Your task to perform on an android device: change timer sound Image 0: 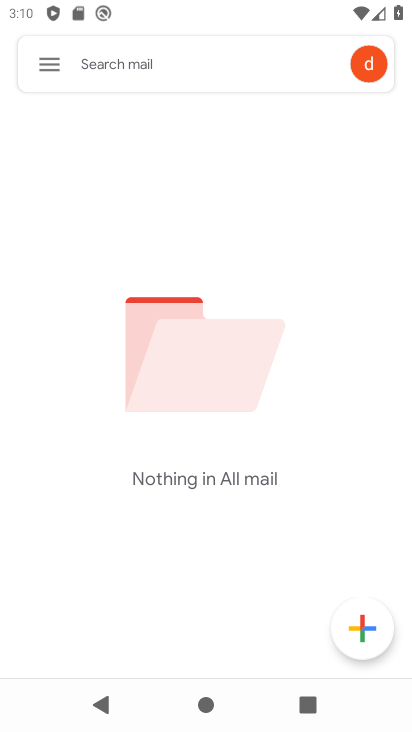
Step 0: press home button
Your task to perform on an android device: change timer sound Image 1: 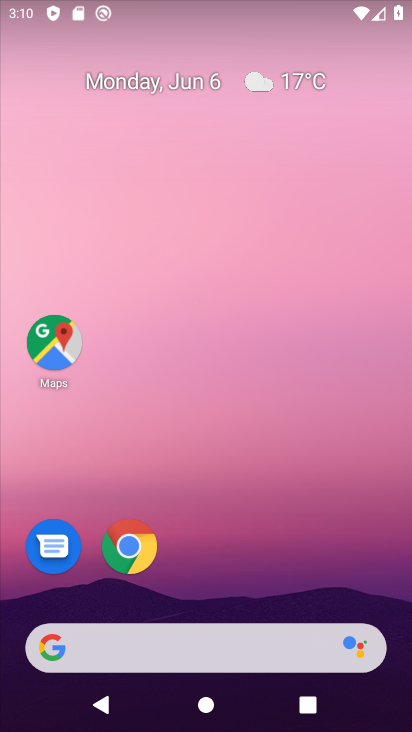
Step 1: drag from (350, 495) to (401, 40)
Your task to perform on an android device: change timer sound Image 2: 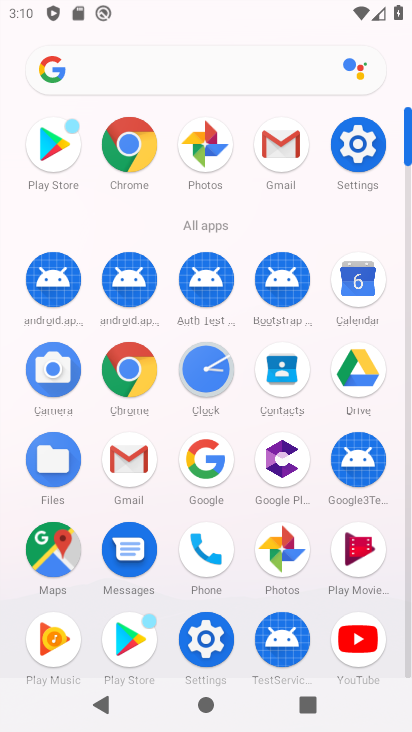
Step 2: click (209, 358)
Your task to perform on an android device: change timer sound Image 3: 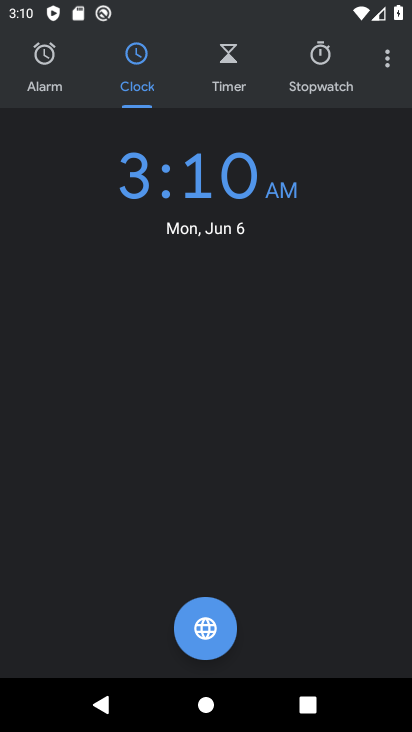
Step 3: click (395, 55)
Your task to perform on an android device: change timer sound Image 4: 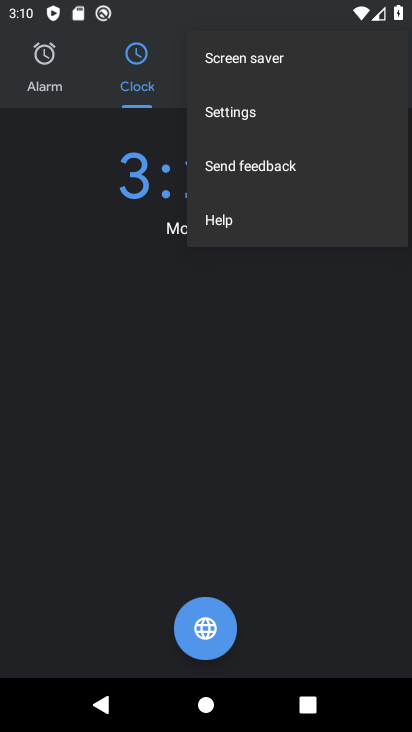
Step 4: click (221, 109)
Your task to perform on an android device: change timer sound Image 5: 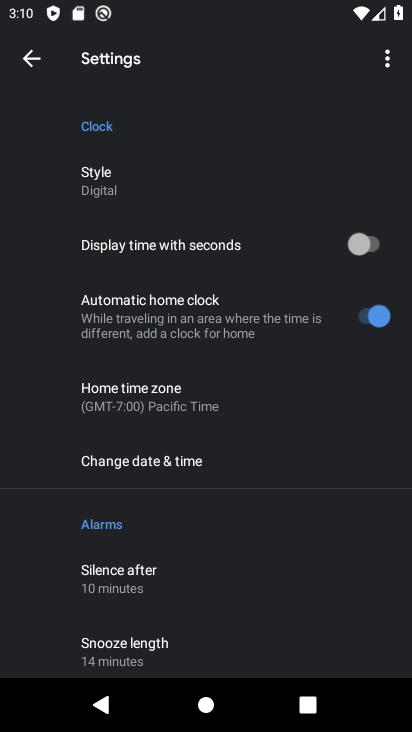
Step 5: drag from (248, 568) to (258, 133)
Your task to perform on an android device: change timer sound Image 6: 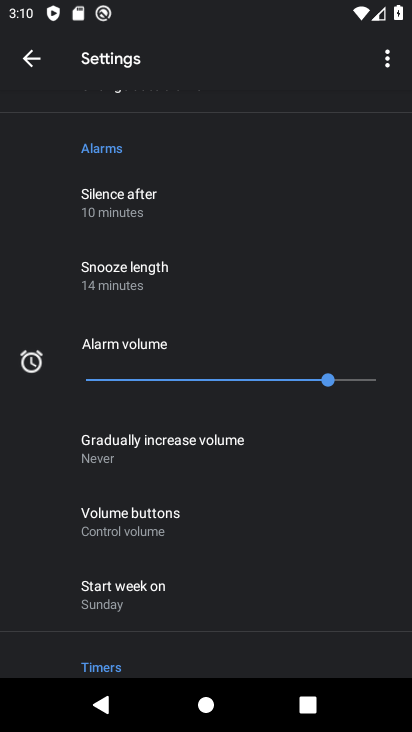
Step 6: drag from (230, 599) to (279, 93)
Your task to perform on an android device: change timer sound Image 7: 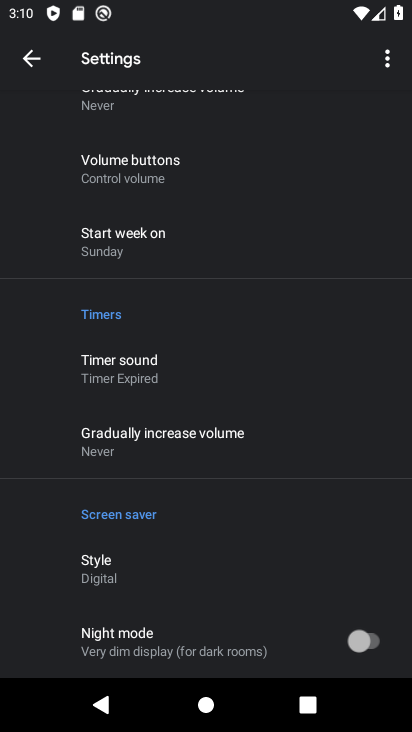
Step 7: click (155, 377)
Your task to perform on an android device: change timer sound Image 8: 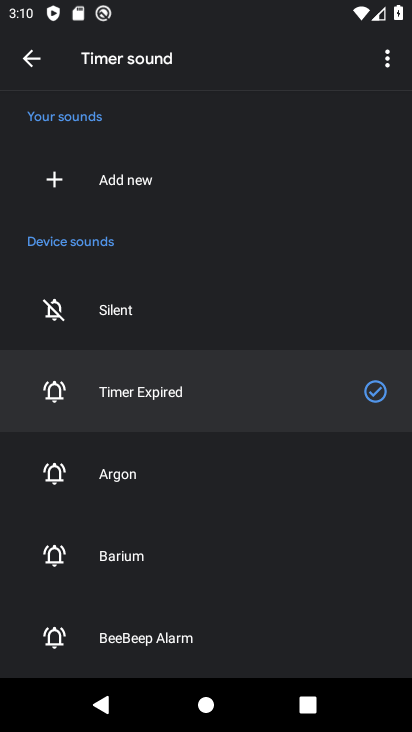
Step 8: click (192, 466)
Your task to perform on an android device: change timer sound Image 9: 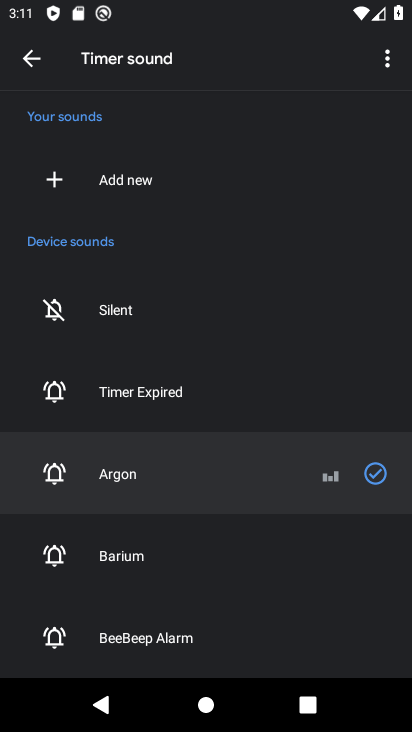
Step 9: task complete